Your task to perform on an android device: change the clock display to show seconds Image 0: 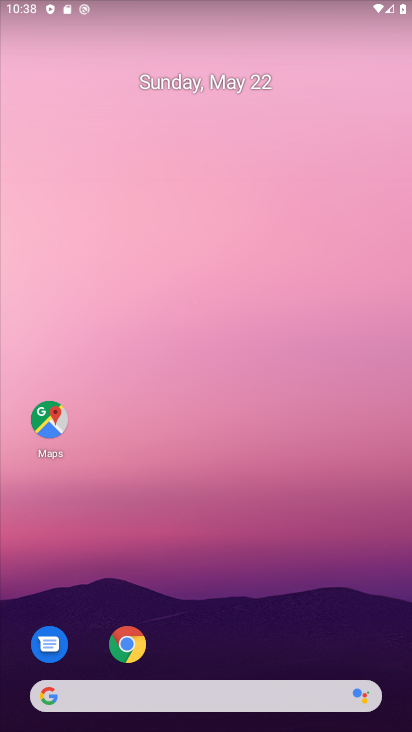
Step 0: drag from (329, 650) to (339, 27)
Your task to perform on an android device: change the clock display to show seconds Image 1: 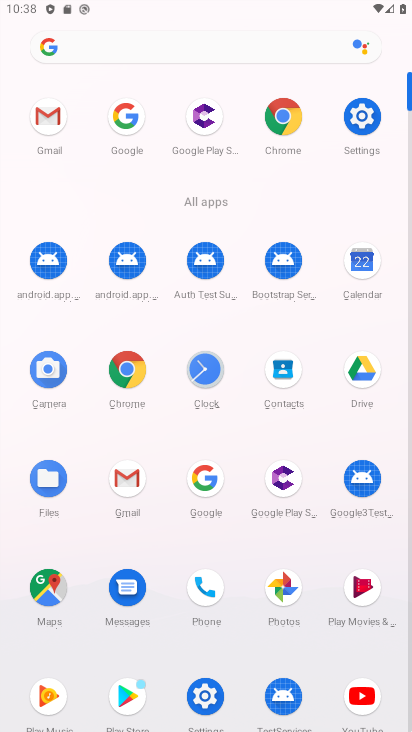
Step 1: click (214, 384)
Your task to perform on an android device: change the clock display to show seconds Image 2: 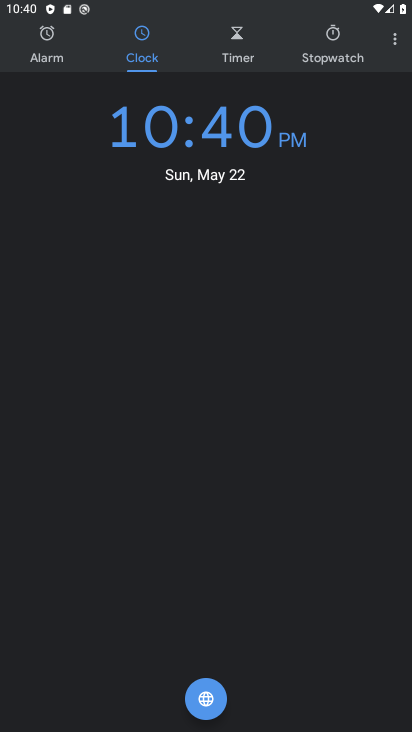
Step 2: click (390, 45)
Your task to perform on an android device: change the clock display to show seconds Image 3: 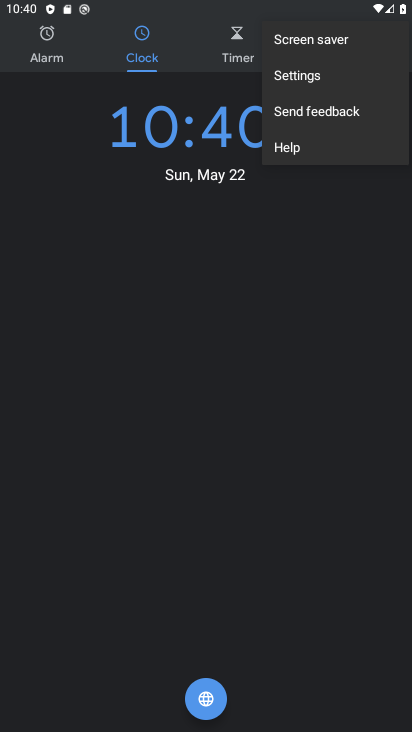
Step 3: click (336, 76)
Your task to perform on an android device: change the clock display to show seconds Image 4: 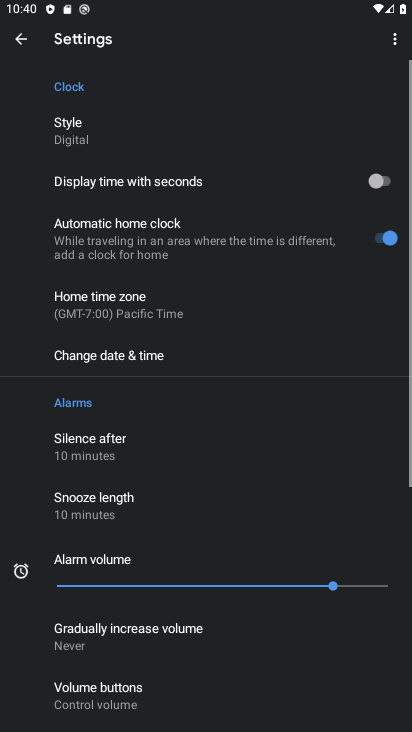
Step 4: click (378, 184)
Your task to perform on an android device: change the clock display to show seconds Image 5: 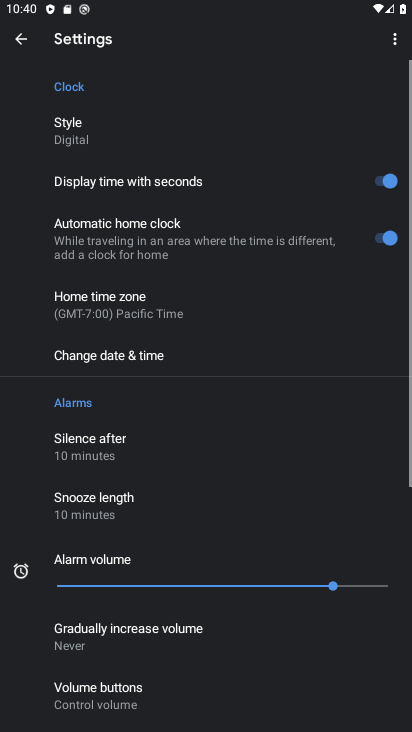
Step 5: task complete